Your task to perform on an android device: Search for "dell alienware" on ebay, select the first entry, and add it to the cart. Image 0: 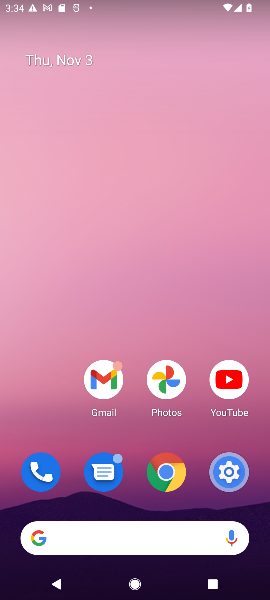
Step 0: click (155, 547)
Your task to perform on an android device: Search for "dell alienware" on ebay, select the first entry, and add it to the cart. Image 1: 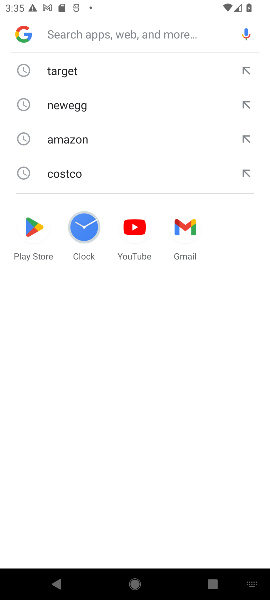
Step 1: type "dell alienware"
Your task to perform on an android device: Search for "dell alienware" on ebay, select the first entry, and add it to the cart. Image 2: 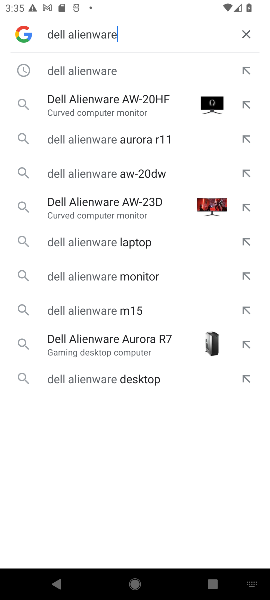
Step 2: click (149, 66)
Your task to perform on an android device: Search for "dell alienware" on ebay, select the first entry, and add it to the cart. Image 3: 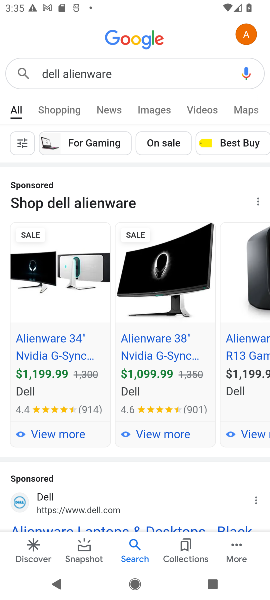
Step 3: drag from (152, 481) to (108, 220)
Your task to perform on an android device: Search for "dell alienware" on ebay, select the first entry, and add it to the cart. Image 4: 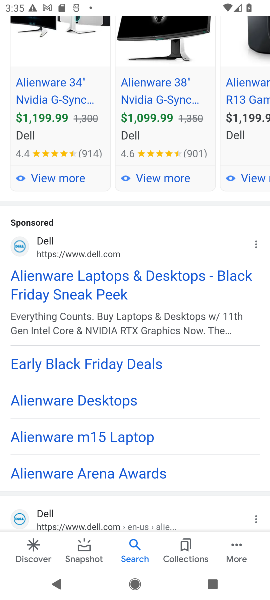
Step 4: click (150, 301)
Your task to perform on an android device: Search for "dell alienware" on ebay, select the first entry, and add it to the cart. Image 5: 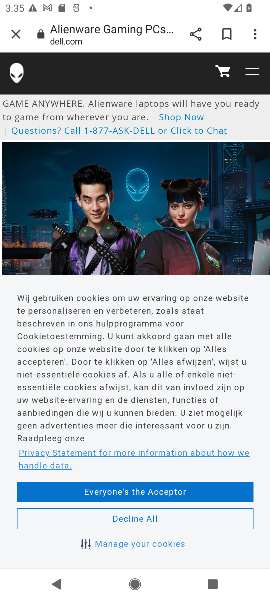
Step 5: task complete